Your task to perform on an android device: Open Google Chrome Image 0: 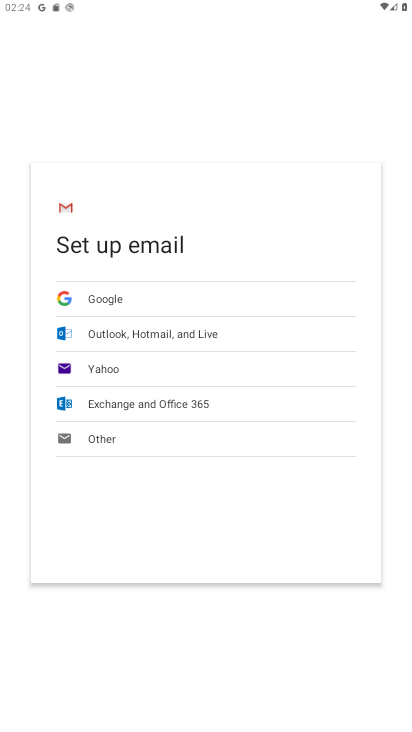
Step 0: press home button
Your task to perform on an android device: Open Google Chrome Image 1: 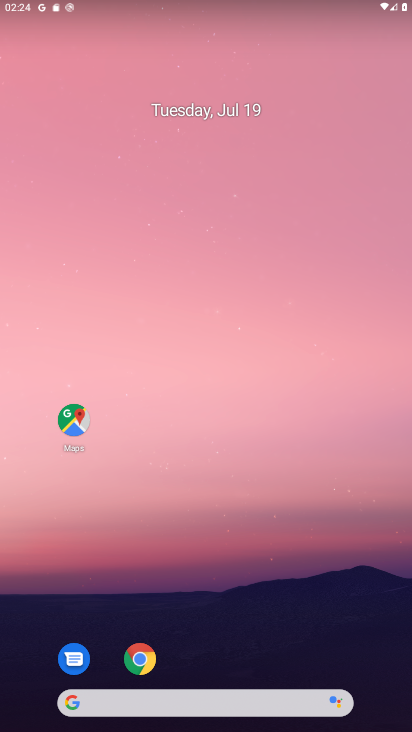
Step 1: click (143, 663)
Your task to perform on an android device: Open Google Chrome Image 2: 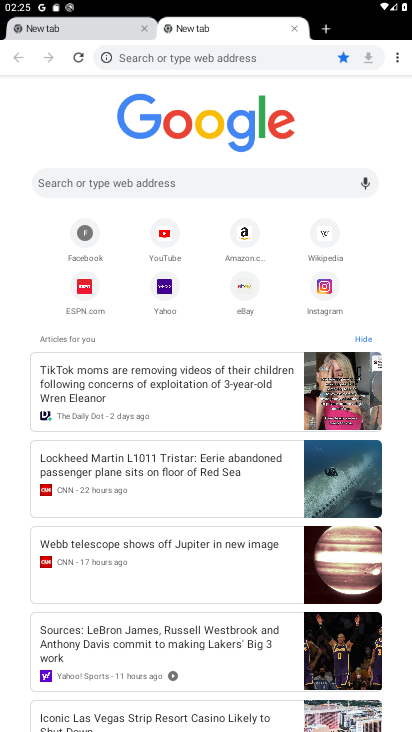
Step 2: task complete